Your task to perform on an android device: turn off smart reply in the gmail app Image 0: 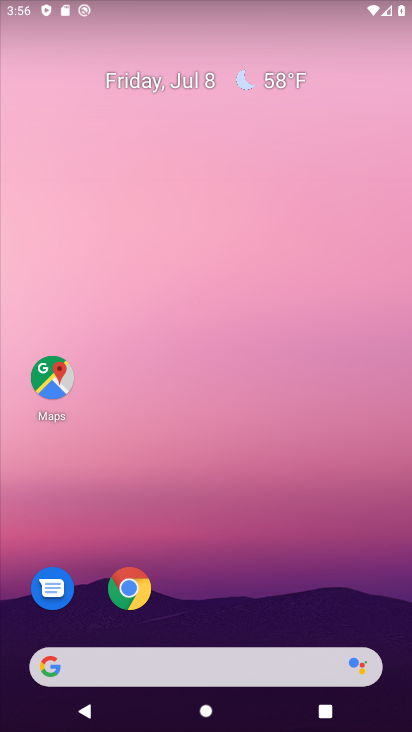
Step 0: drag from (80, 696) to (256, 175)
Your task to perform on an android device: turn off smart reply in the gmail app Image 1: 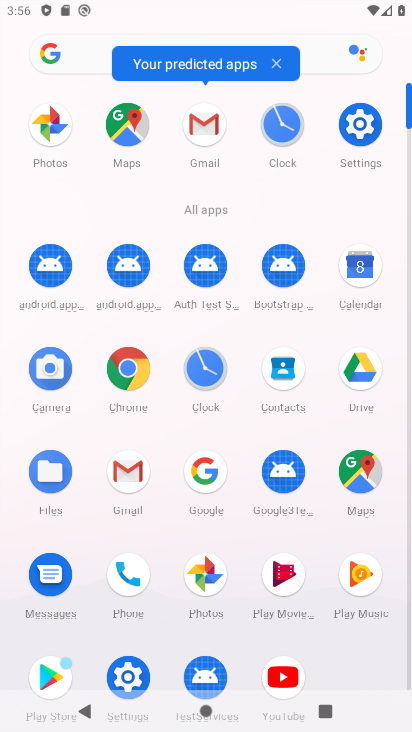
Step 1: click (137, 491)
Your task to perform on an android device: turn off smart reply in the gmail app Image 2: 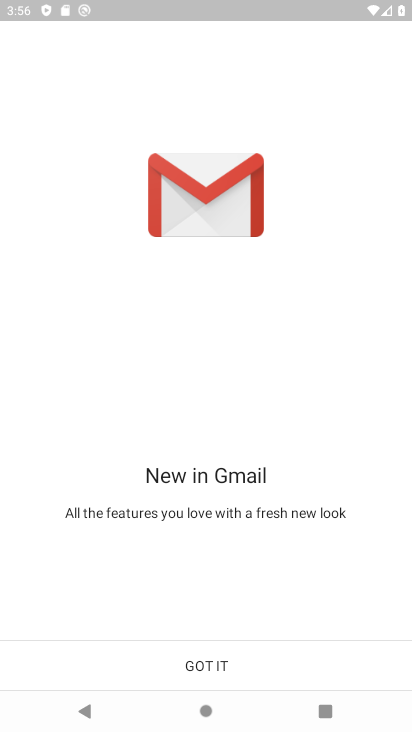
Step 2: click (263, 672)
Your task to perform on an android device: turn off smart reply in the gmail app Image 3: 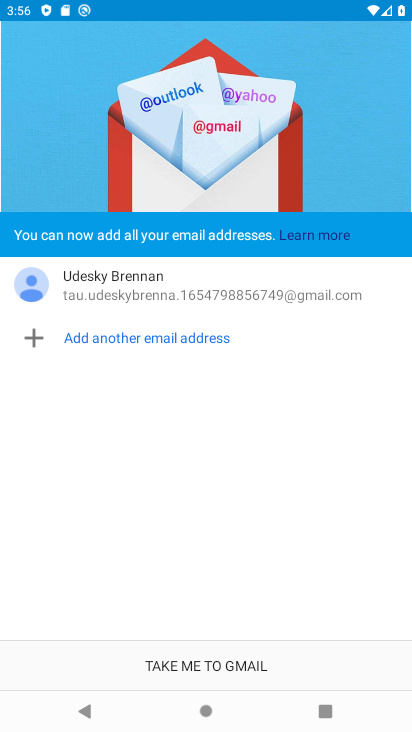
Step 3: click (257, 662)
Your task to perform on an android device: turn off smart reply in the gmail app Image 4: 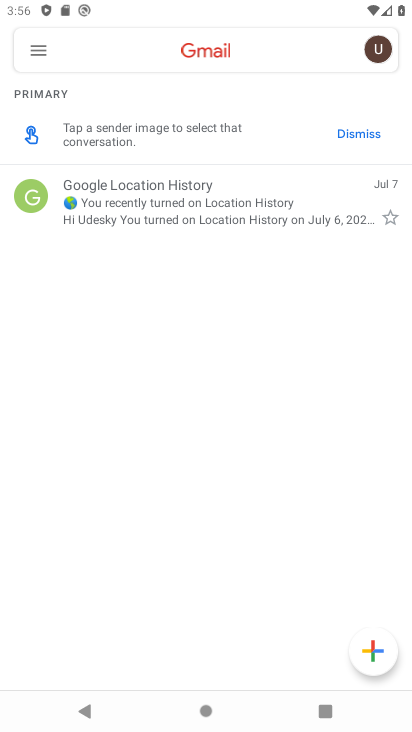
Step 4: click (49, 57)
Your task to perform on an android device: turn off smart reply in the gmail app Image 5: 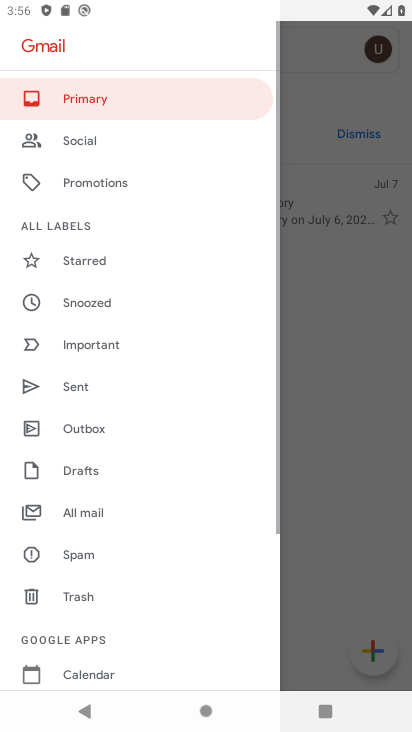
Step 5: drag from (93, 691) to (200, 208)
Your task to perform on an android device: turn off smart reply in the gmail app Image 6: 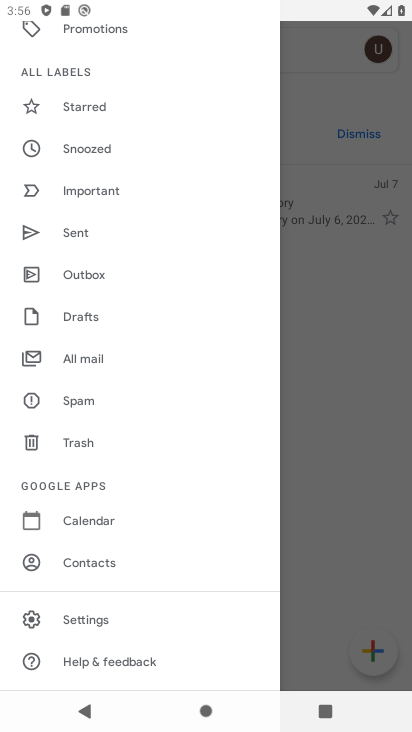
Step 6: click (148, 621)
Your task to perform on an android device: turn off smart reply in the gmail app Image 7: 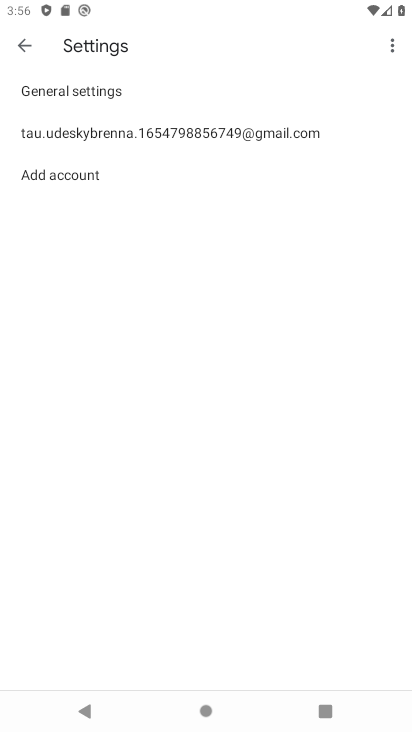
Step 7: click (243, 133)
Your task to perform on an android device: turn off smart reply in the gmail app Image 8: 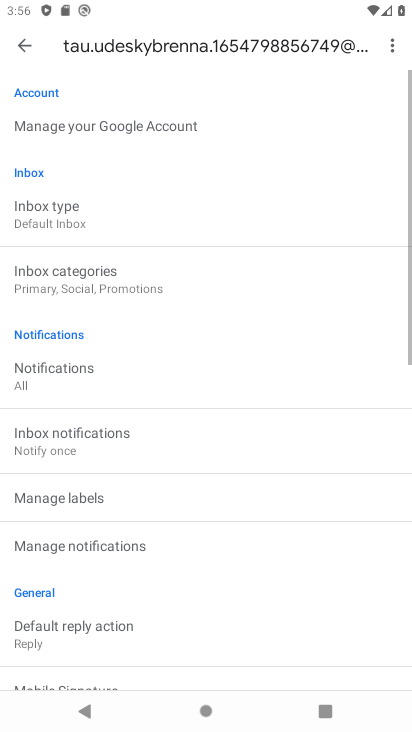
Step 8: drag from (150, 536) to (285, 192)
Your task to perform on an android device: turn off smart reply in the gmail app Image 9: 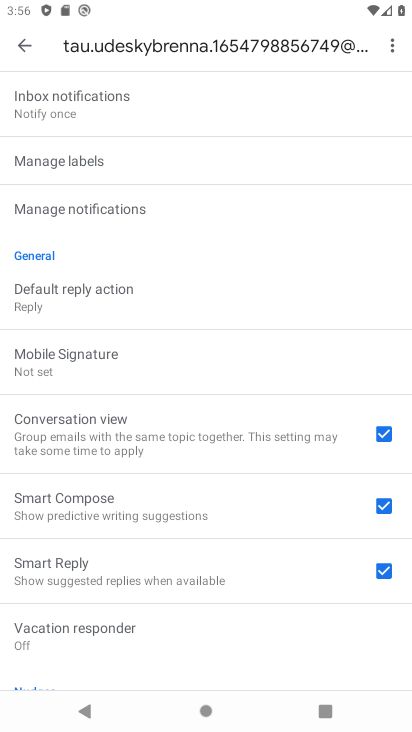
Step 9: click (391, 571)
Your task to perform on an android device: turn off smart reply in the gmail app Image 10: 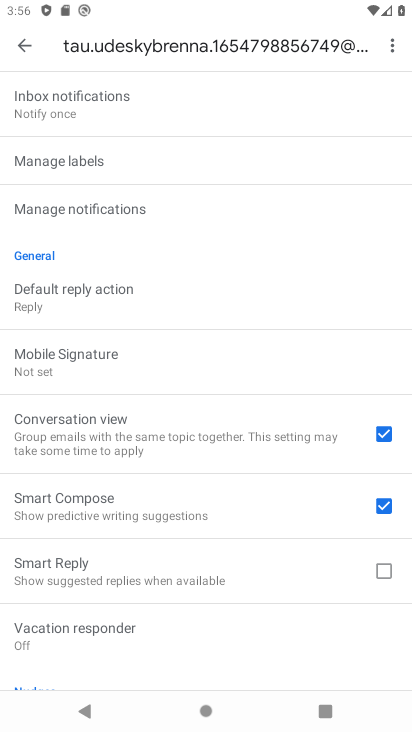
Step 10: task complete